Your task to perform on an android device: turn notification dots off Image 0: 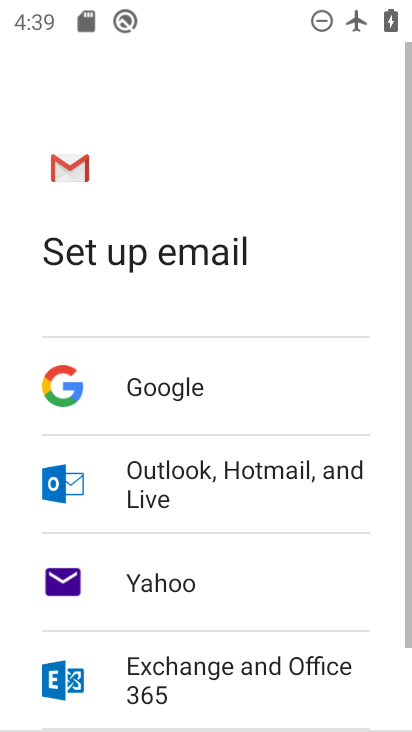
Step 0: press home button
Your task to perform on an android device: turn notification dots off Image 1: 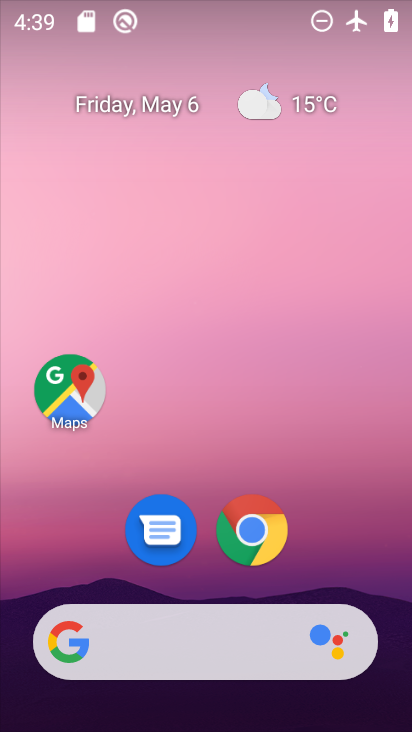
Step 1: drag from (366, 533) to (372, 11)
Your task to perform on an android device: turn notification dots off Image 2: 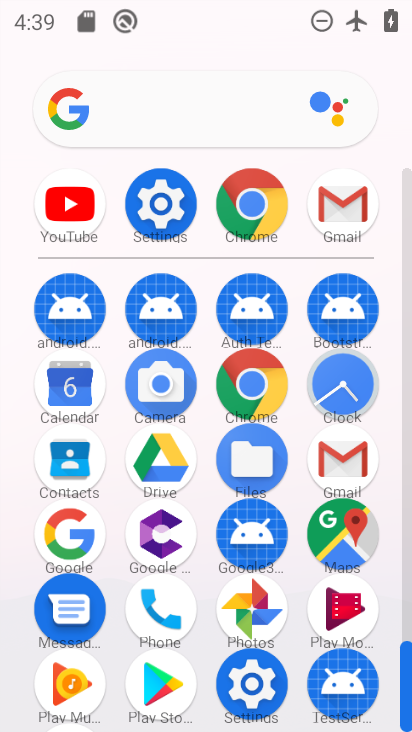
Step 2: click (153, 211)
Your task to perform on an android device: turn notification dots off Image 3: 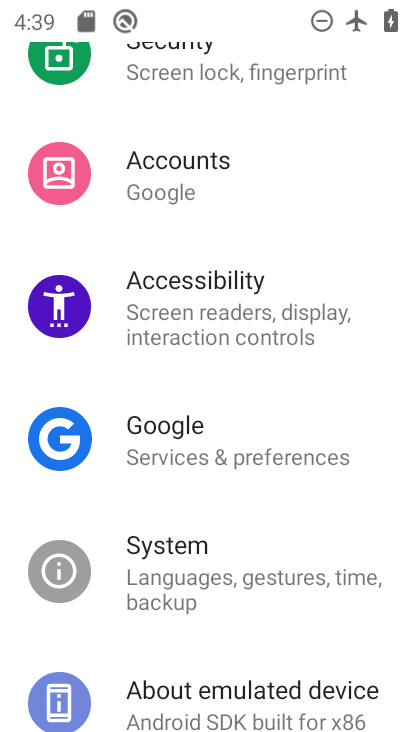
Step 3: drag from (228, 287) to (184, 691)
Your task to perform on an android device: turn notification dots off Image 4: 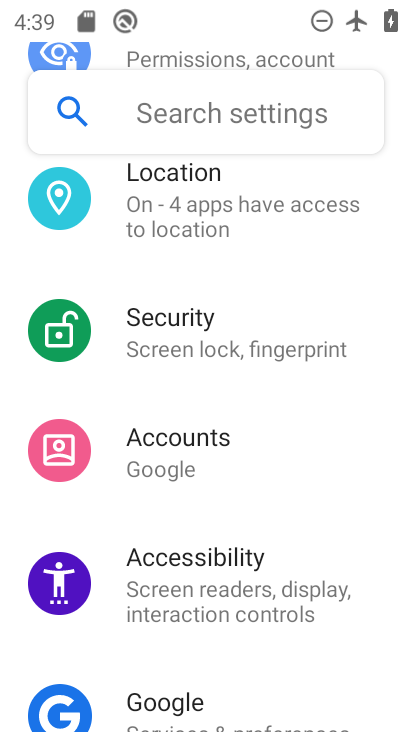
Step 4: drag from (202, 598) to (262, 224)
Your task to perform on an android device: turn notification dots off Image 5: 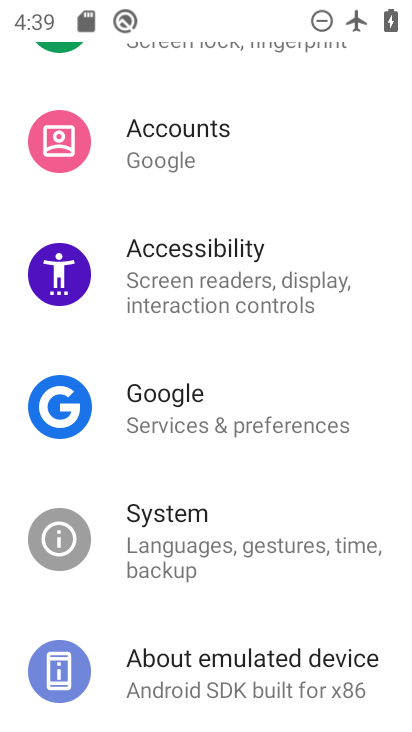
Step 5: drag from (253, 237) to (244, 643)
Your task to perform on an android device: turn notification dots off Image 6: 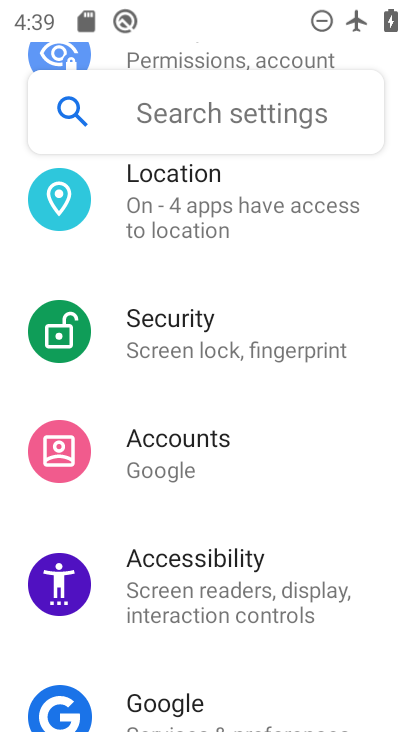
Step 6: drag from (255, 157) to (212, 659)
Your task to perform on an android device: turn notification dots off Image 7: 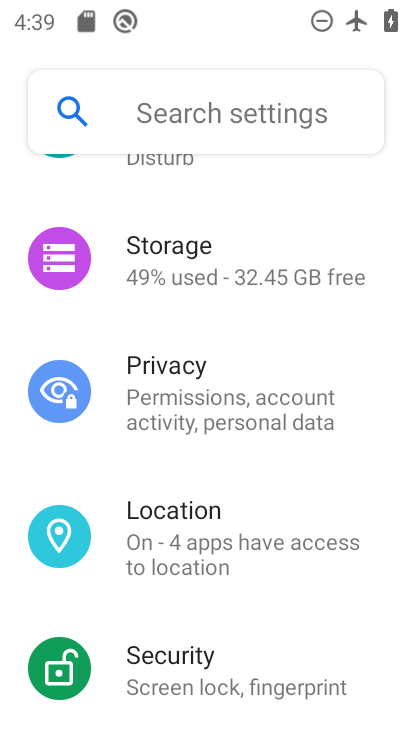
Step 7: drag from (364, 171) to (293, 655)
Your task to perform on an android device: turn notification dots off Image 8: 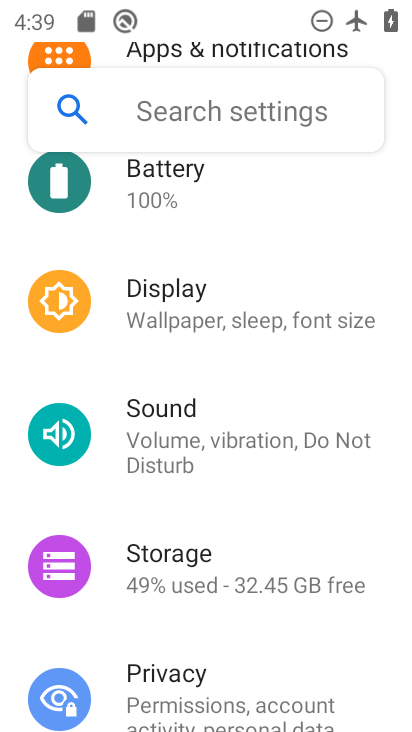
Step 8: drag from (249, 209) to (191, 657)
Your task to perform on an android device: turn notification dots off Image 9: 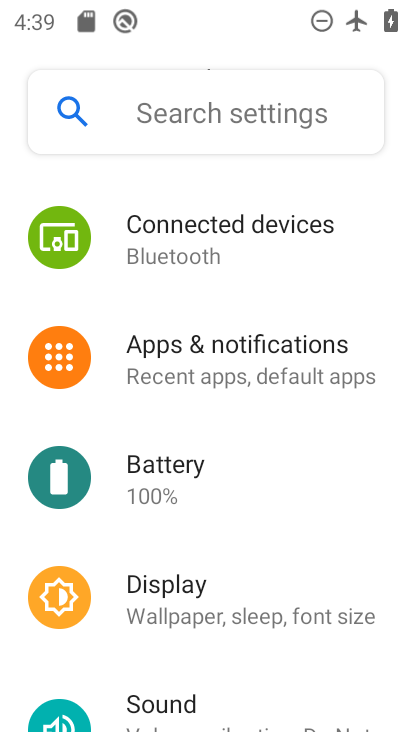
Step 9: click (279, 381)
Your task to perform on an android device: turn notification dots off Image 10: 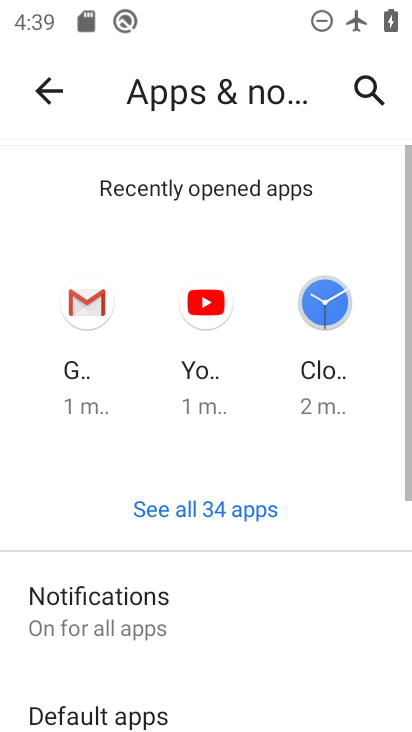
Step 10: drag from (221, 666) to (329, 210)
Your task to perform on an android device: turn notification dots off Image 11: 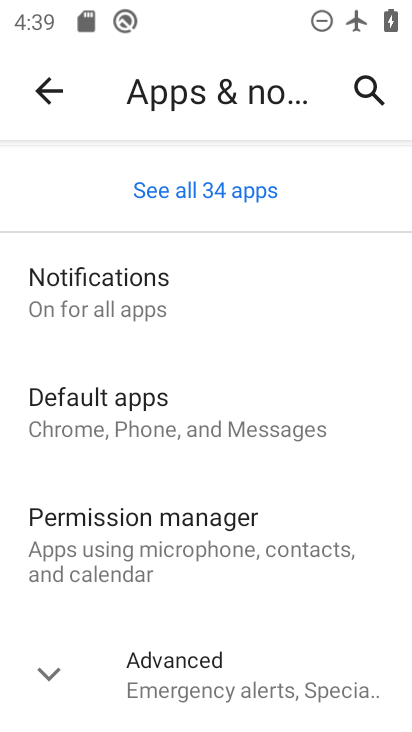
Step 11: drag from (265, 602) to (324, 171)
Your task to perform on an android device: turn notification dots off Image 12: 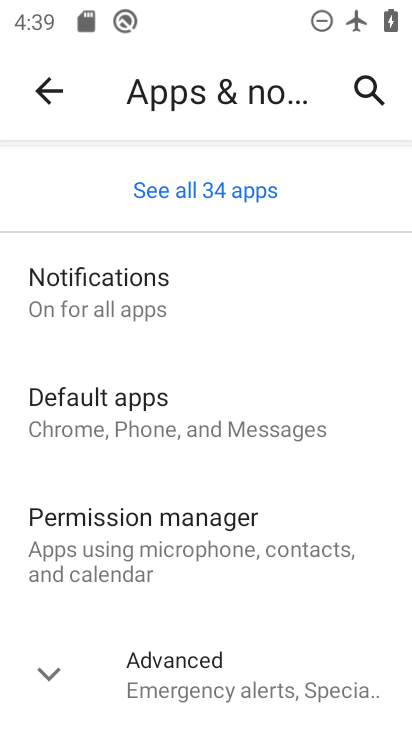
Step 12: click (190, 666)
Your task to perform on an android device: turn notification dots off Image 13: 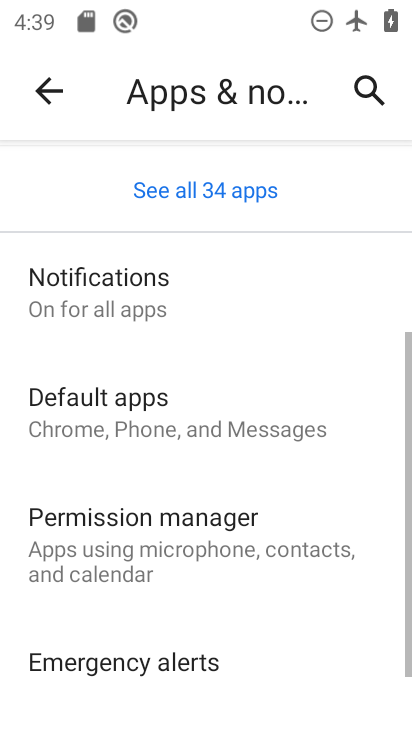
Step 13: drag from (191, 665) to (219, 214)
Your task to perform on an android device: turn notification dots off Image 14: 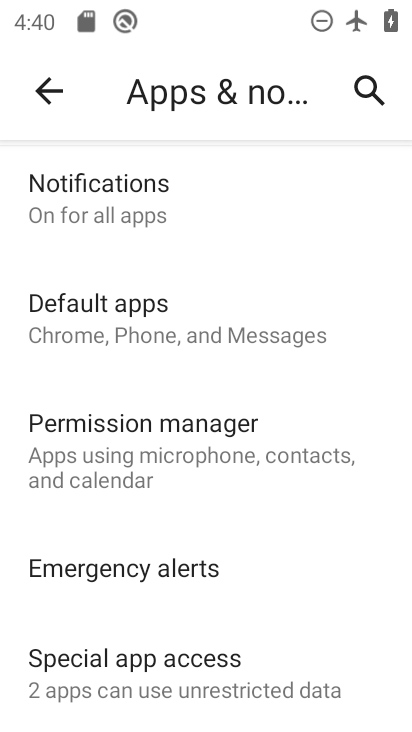
Step 14: drag from (163, 688) to (190, 306)
Your task to perform on an android device: turn notification dots off Image 15: 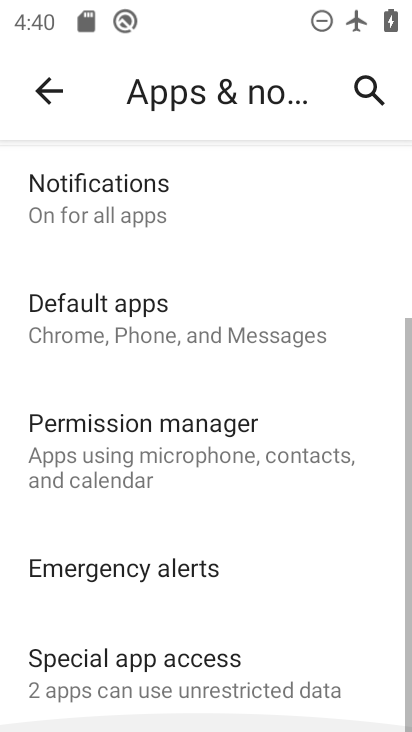
Step 15: click (102, 193)
Your task to perform on an android device: turn notification dots off Image 16: 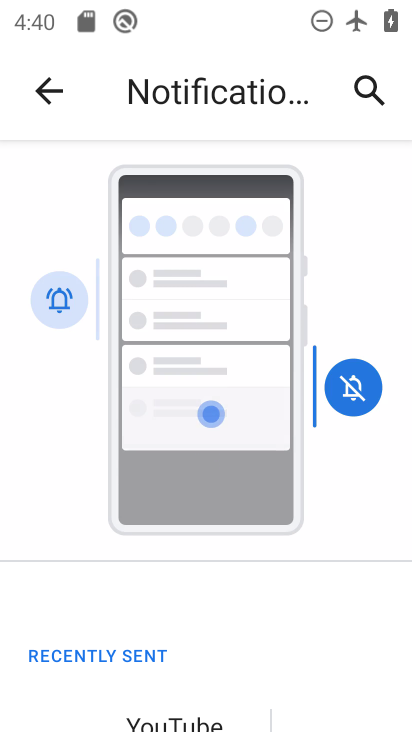
Step 16: drag from (246, 632) to (299, 196)
Your task to perform on an android device: turn notification dots off Image 17: 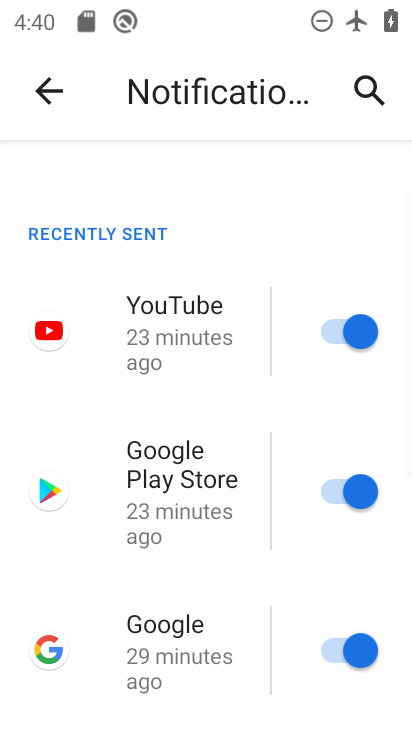
Step 17: drag from (213, 635) to (224, 190)
Your task to perform on an android device: turn notification dots off Image 18: 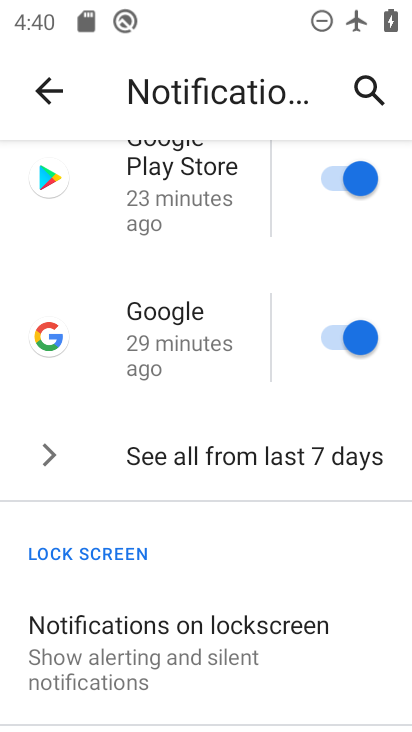
Step 18: drag from (225, 684) to (306, 277)
Your task to perform on an android device: turn notification dots off Image 19: 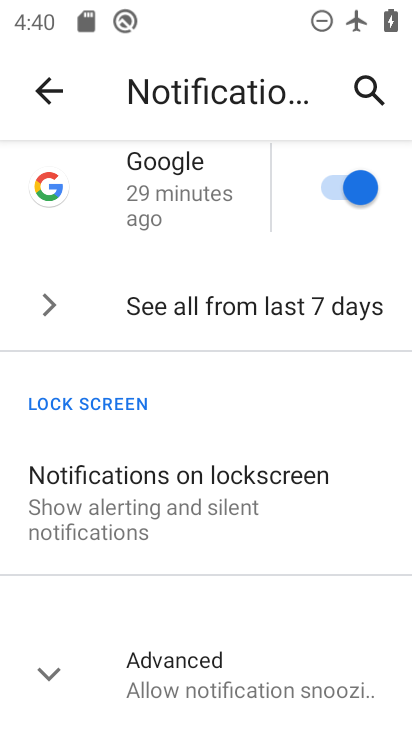
Step 19: click (220, 698)
Your task to perform on an android device: turn notification dots off Image 20: 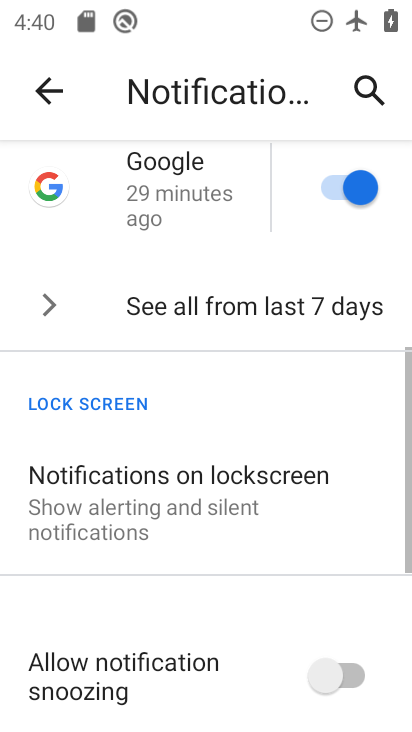
Step 20: drag from (296, 377) to (309, 283)
Your task to perform on an android device: turn notification dots off Image 21: 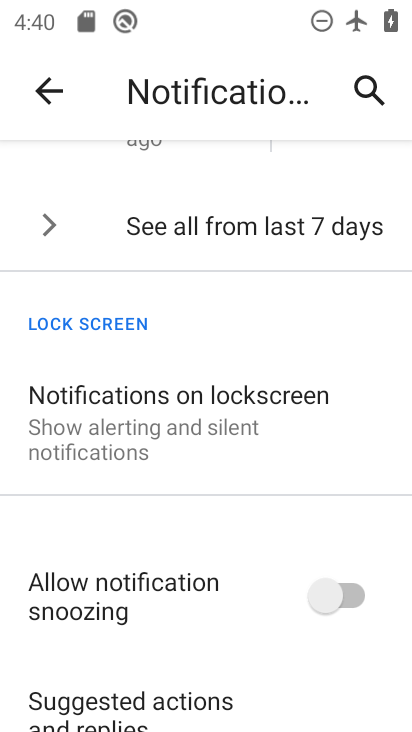
Step 21: drag from (213, 675) to (277, 275)
Your task to perform on an android device: turn notification dots off Image 22: 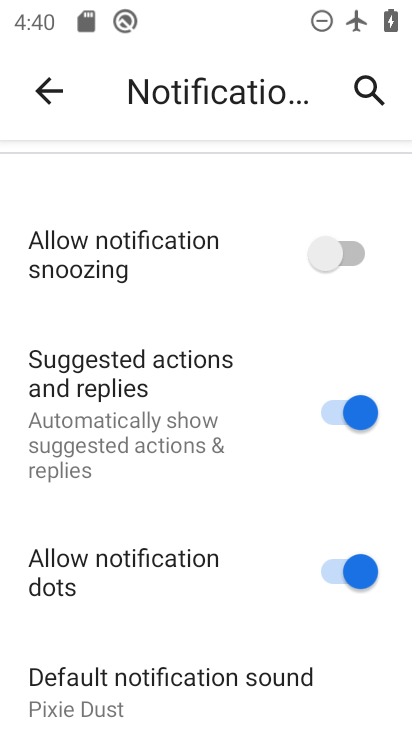
Step 22: drag from (243, 701) to (282, 330)
Your task to perform on an android device: turn notification dots off Image 23: 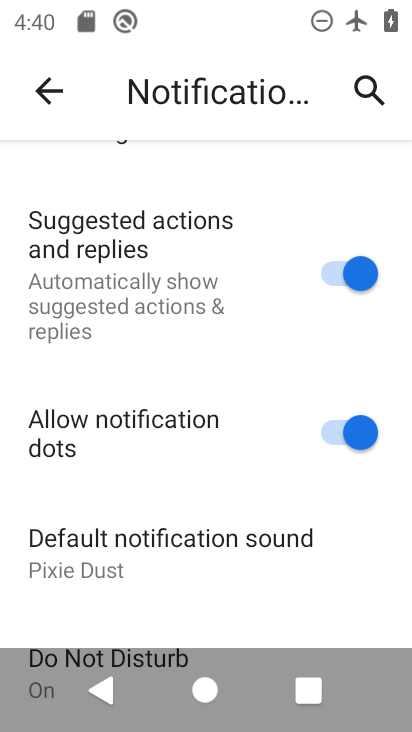
Step 23: click (339, 439)
Your task to perform on an android device: turn notification dots off Image 24: 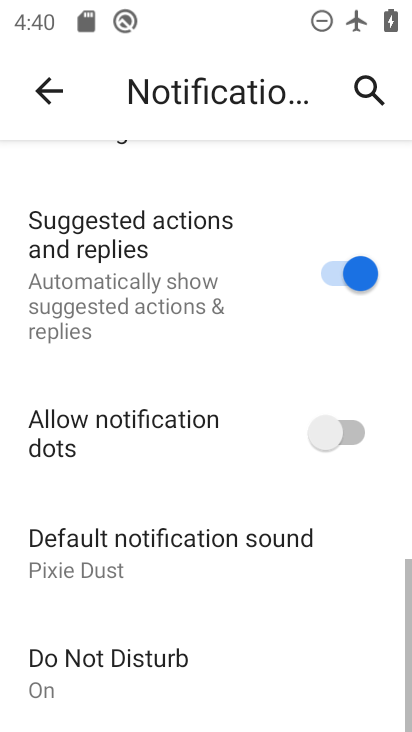
Step 24: task complete